Your task to perform on an android device: Show me recent news Image 0: 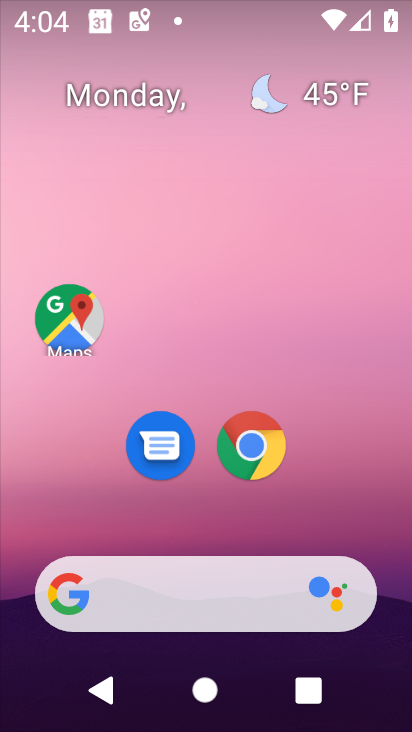
Step 0: drag from (308, 501) to (296, 116)
Your task to perform on an android device: Show me recent news Image 1: 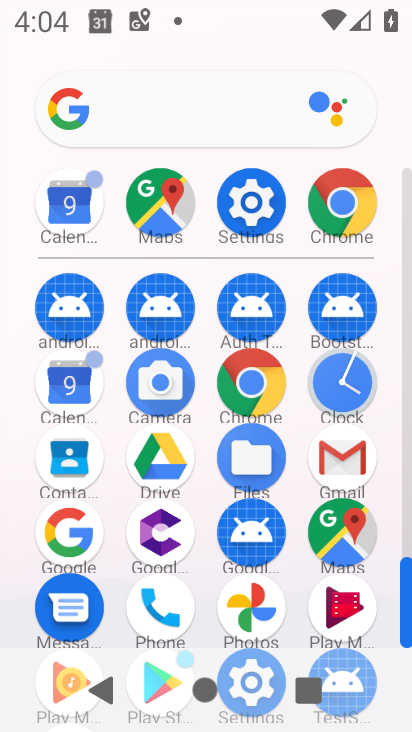
Step 1: click (143, 125)
Your task to perform on an android device: Show me recent news Image 2: 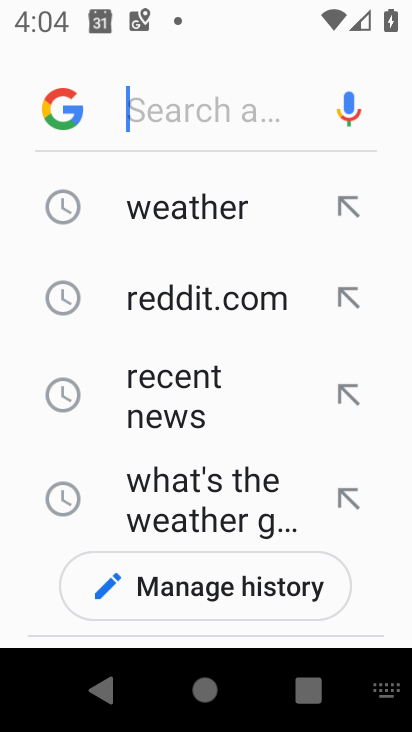
Step 2: type "recent news"
Your task to perform on an android device: Show me recent news Image 3: 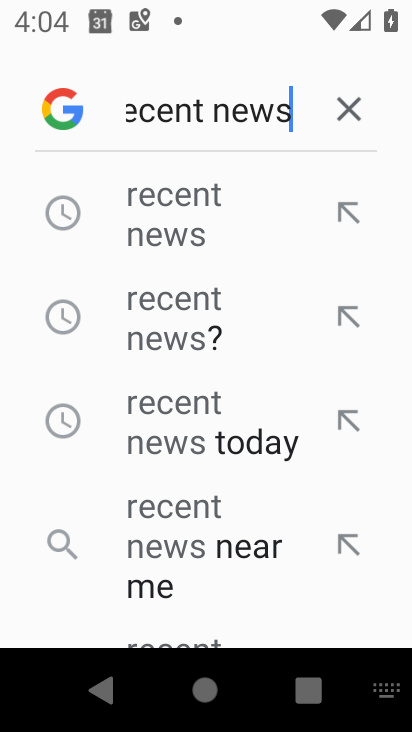
Step 3: click (144, 194)
Your task to perform on an android device: Show me recent news Image 4: 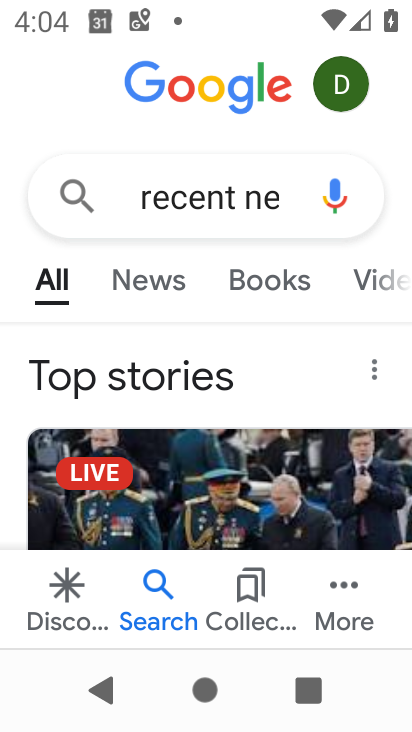
Step 4: click (154, 281)
Your task to perform on an android device: Show me recent news Image 5: 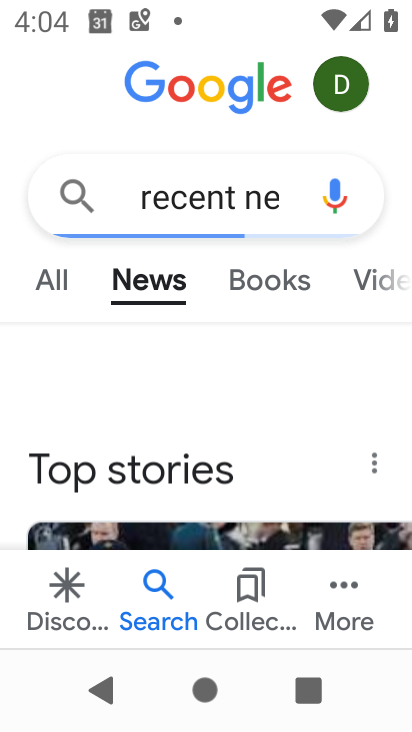
Step 5: task complete